Your task to perform on an android device: Open my contact list Image 0: 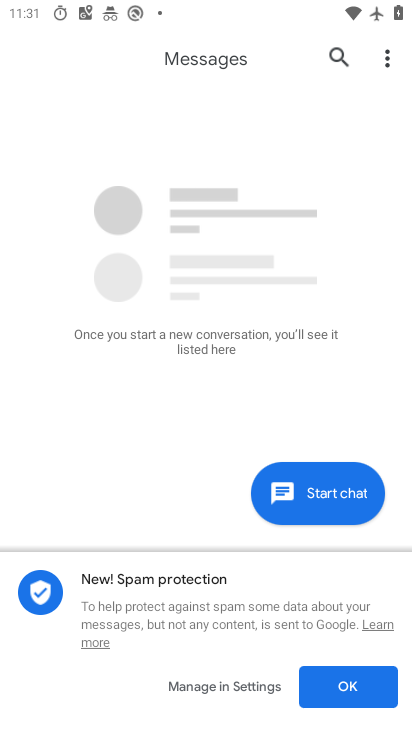
Step 0: press back button
Your task to perform on an android device: Open my contact list Image 1: 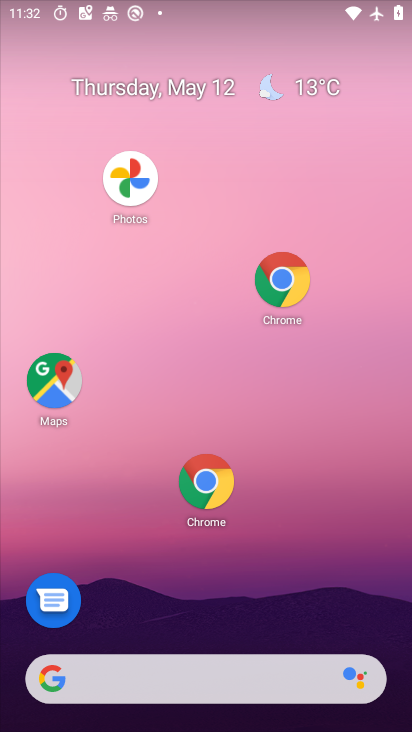
Step 1: drag from (298, 605) to (171, 195)
Your task to perform on an android device: Open my contact list Image 2: 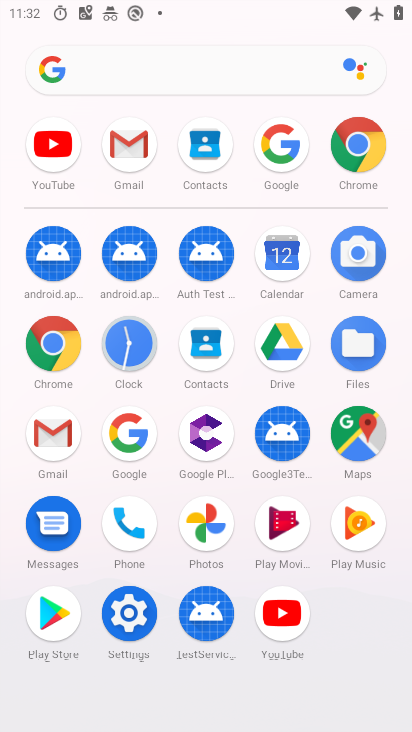
Step 2: click (198, 350)
Your task to perform on an android device: Open my contact list Image 3: 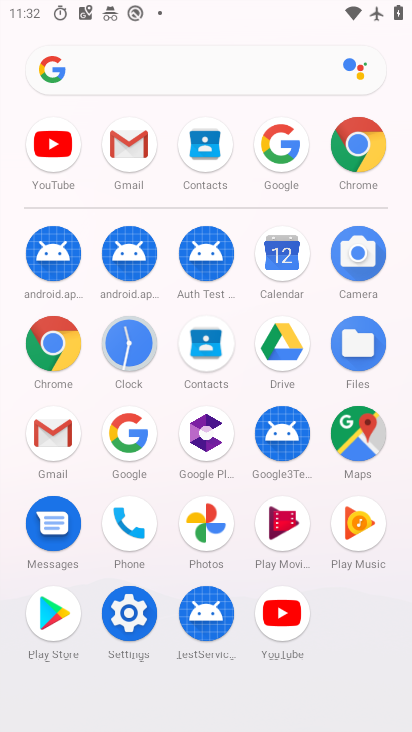
Step 3: click (199, 350)
Your task to perform on an android device: Open my contact list Image 4: 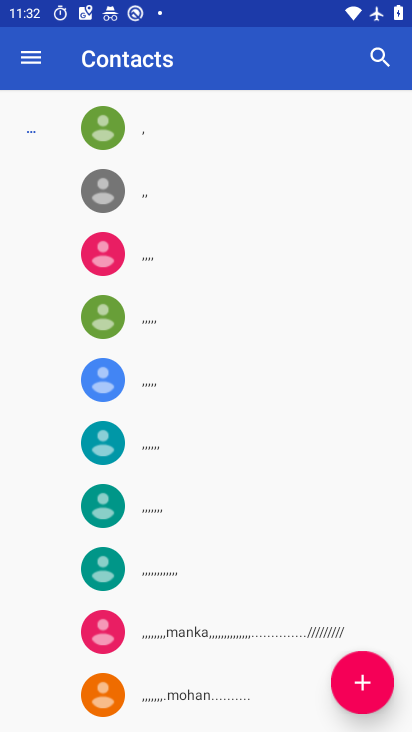
Step 4: task complete